Your task to perform on an android device: choose inbox layout in the gmail app Image 0: 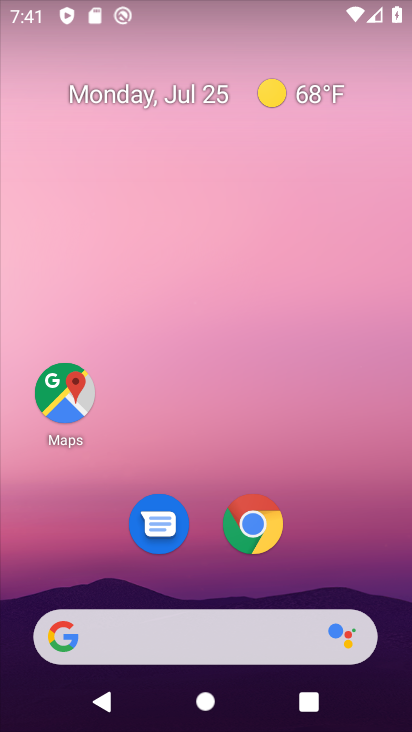
Step 0: drag from (335, 538) to (343, 23)
Your task to perform on an android device: choose inbox layout in the gmail app Image 1: 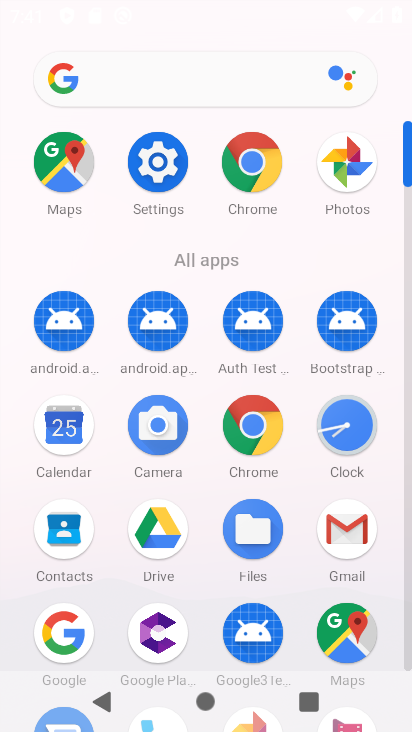
Step 1: click (340, 528)
Your task to perform on an android device: choose inbox layout in the gmail app Image 2: 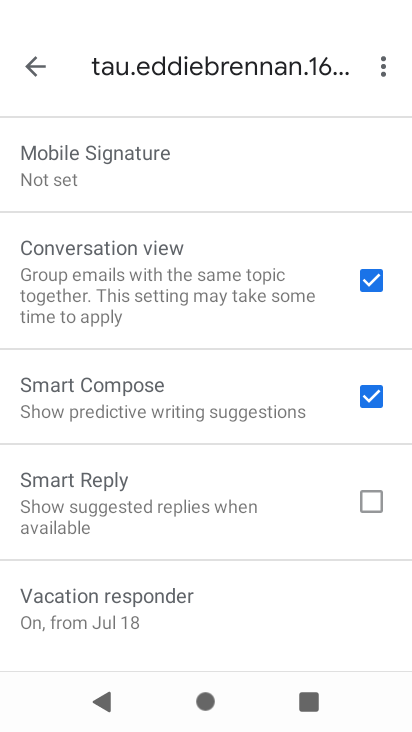
Step 2: drag from (245, 172) to (226, 628)
Your task to perform on an android device: choose inbox layout in the gmail app Image 3: 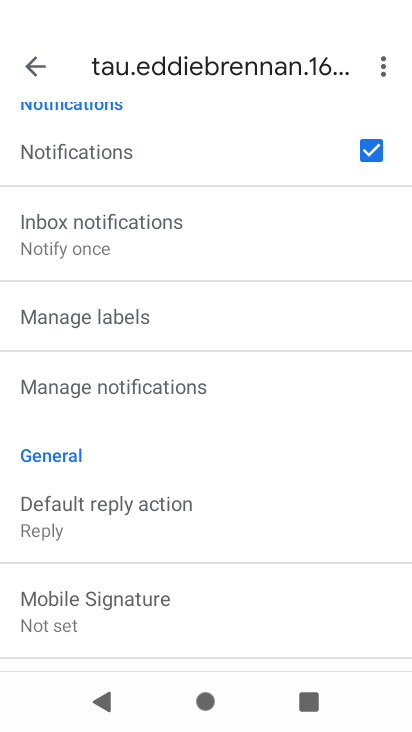
Step 3: drag from (226, 215) to (186, 580)
Your task to perform on an android device: choose inbox layout in the gmail app Image 4: 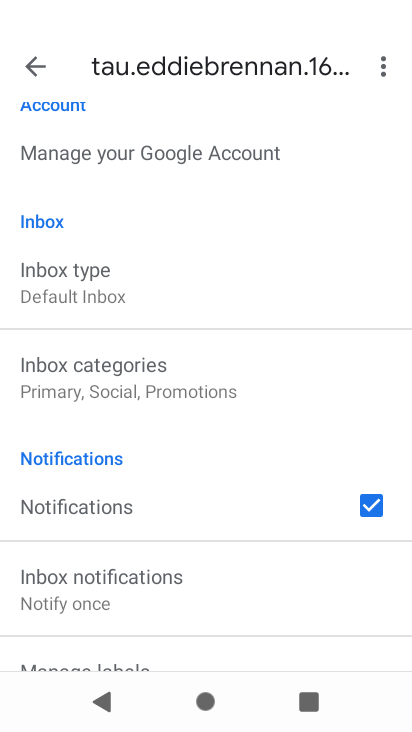
Step 4: click (73, 279)
Your task to perform on an android device: choose inbox layout in the gmail app Image 5: 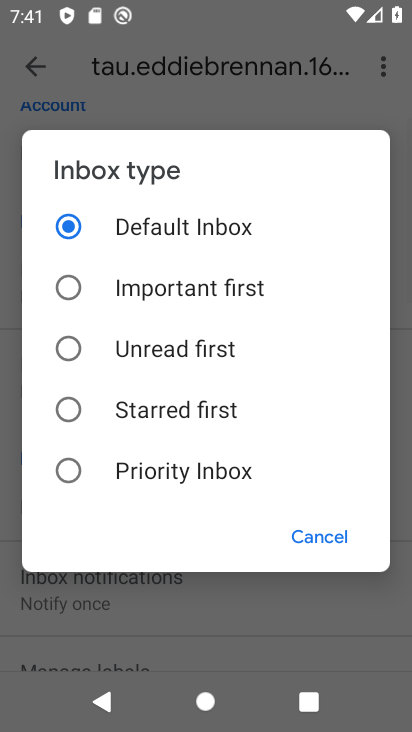
Step 5: click (73, 279)
Your task to perform on an android device: choose inbox layout in the gmail app Image 6: 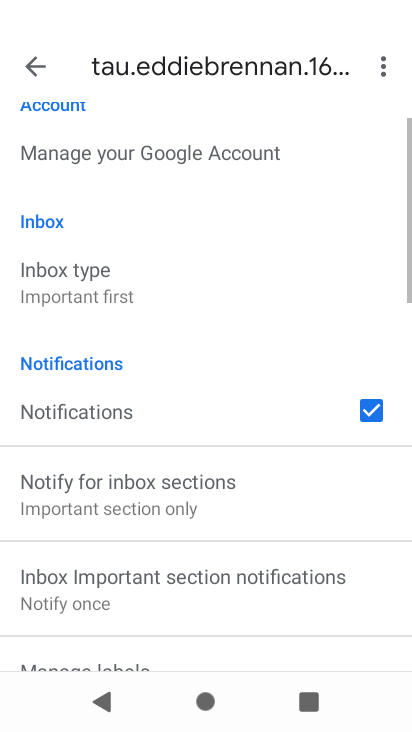
Step 6: task complete